Your task to perform on an android device: Show me popular videos on Youtube Image 0: 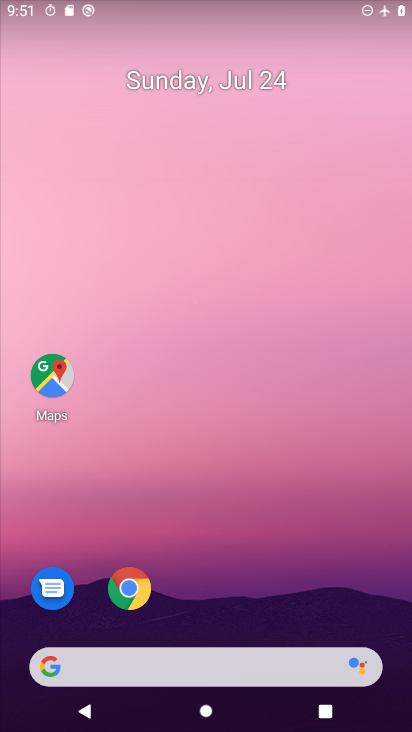
Step 0: drag from (252, 626) to (191, 62)
Your task to perform on an android device: Show me popular videos on Youtube Image 1: 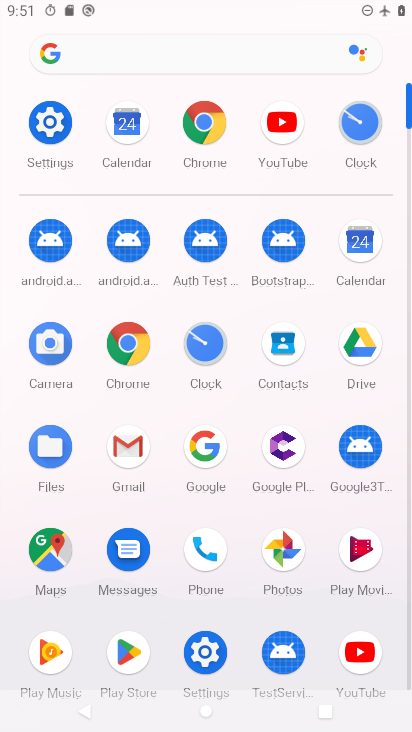
Step 1: click (286, 125)
Your task to perform on an android device: Show me popular videos on Youtube Image 2: 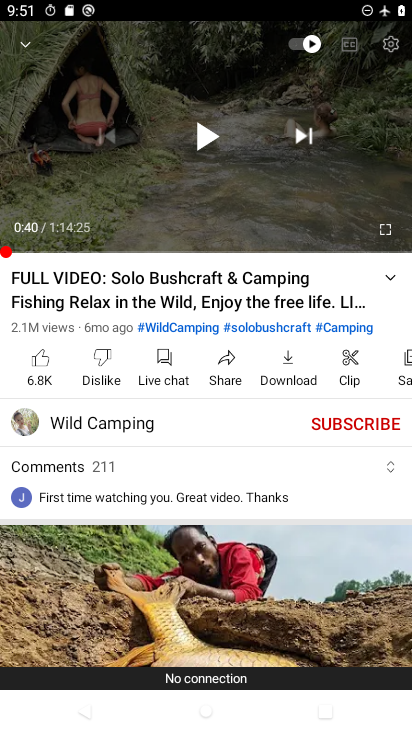
Step 2: click (25, 51)
Your task to perform on an android device: Show me popular videos on Youtube Image 3: 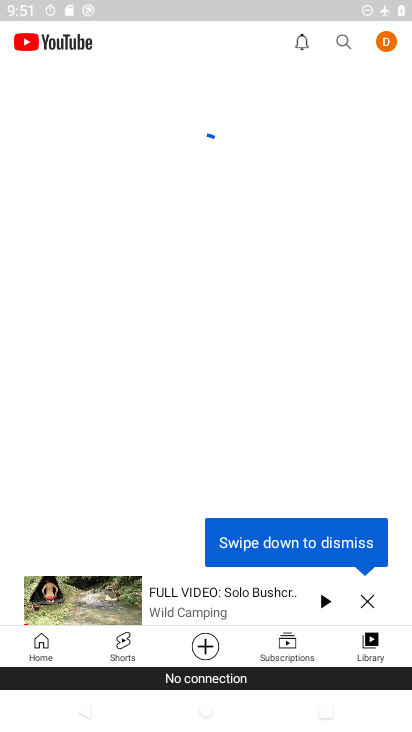
Step 3: click (42, 652)
Your task to perform on an android device: Show me popular videos on Youtube Image 4: 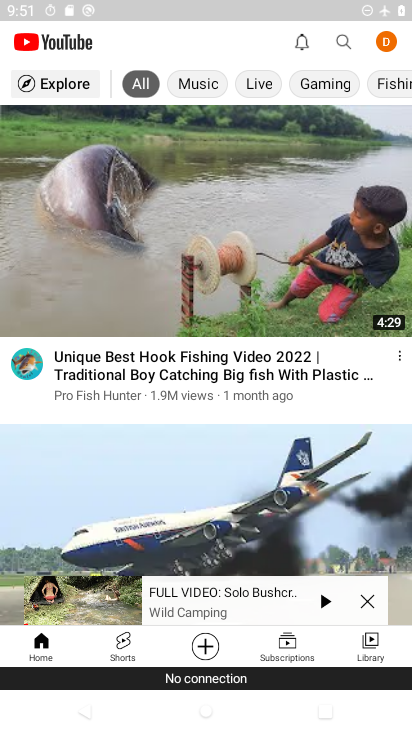
Step 4: task complete